Your task to perform on an android device: find snoozed emails in the gmail app Image 0: 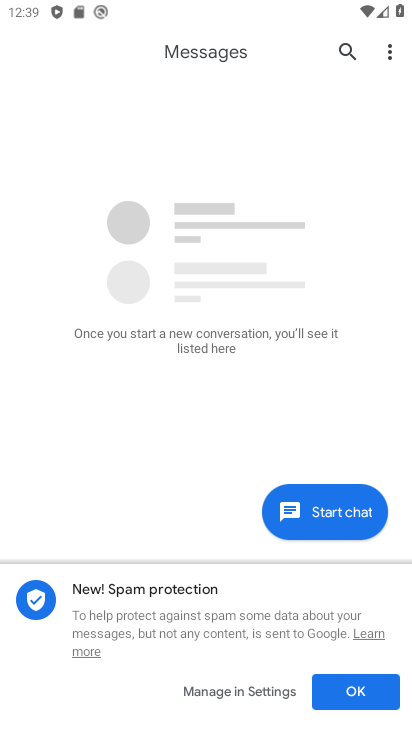
Step 0: press home button
Your task to perform on an android device: find snoozed emails in the gmail app Image 1: 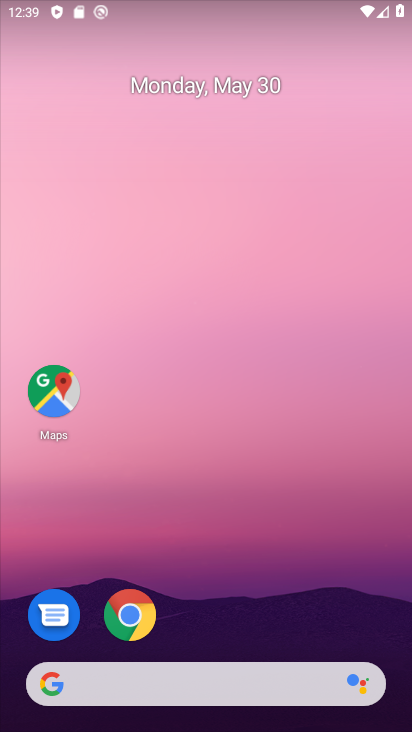
Step 1: drag from (116, 605) to (182, 163)
Your task to perform on an android device: find snoozed emails in the gmail app Image 2: 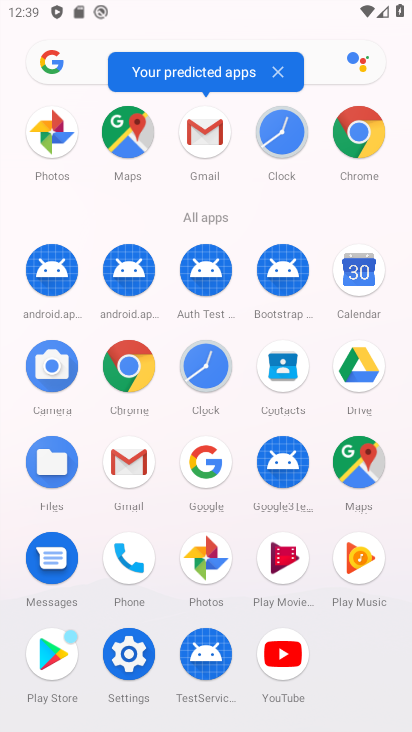
Step 2: click (123, 479)
Your task to perform on an android device: find snoozed emails in the gmail app Image 3: 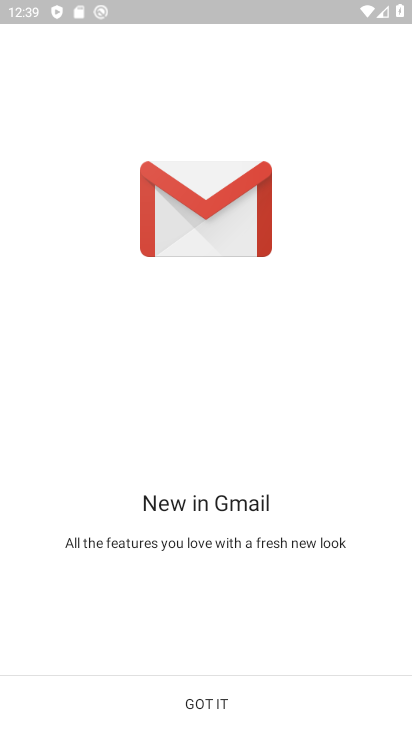
Step 3: click (235, 702)
Your task to perform on an android device: find snoozed emails in the gmail app Image 4: 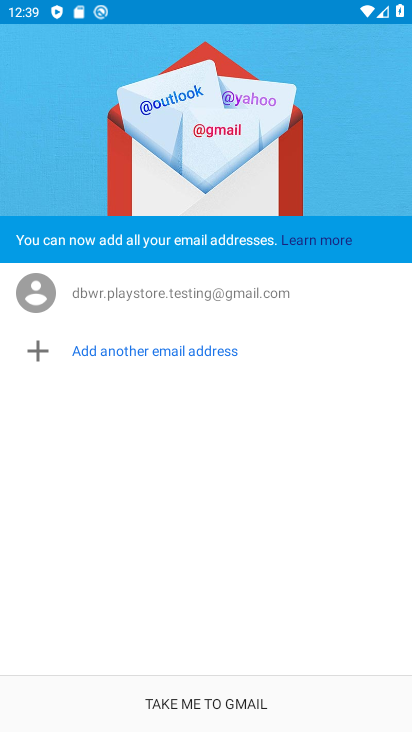
Step 4: click (256, 721)
Your task to perform on an android device: find snoozed emails in the gmail app Image 5: 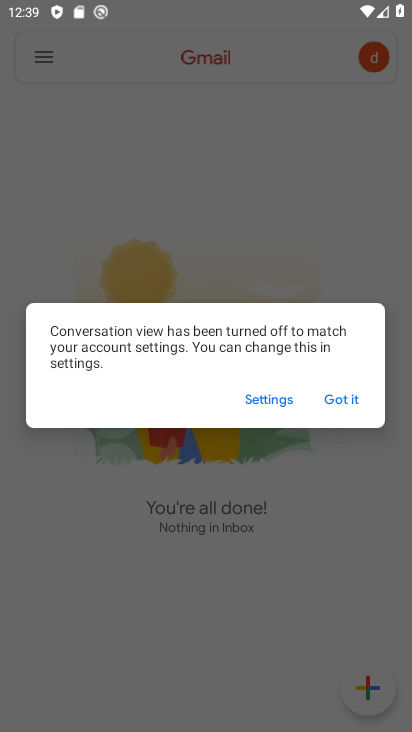
Step 5: click (314, 398)
Your task to perform on an android device: find snoozed emails in the gmail app Image 6: 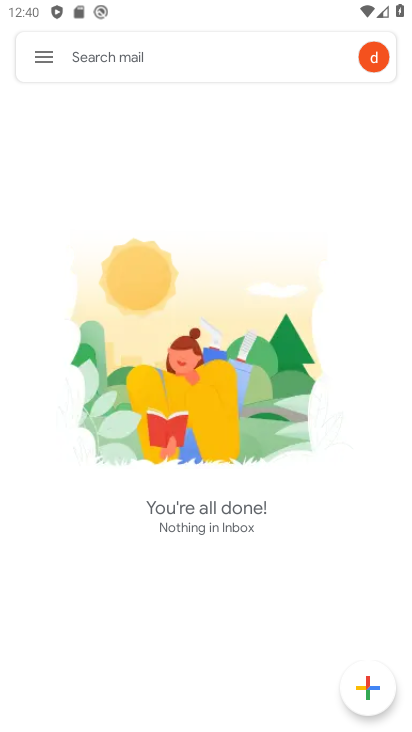
Step 6: click (44, 55)
Your task to perform on an android device: find snoozed emails in the gmail app Image 7: 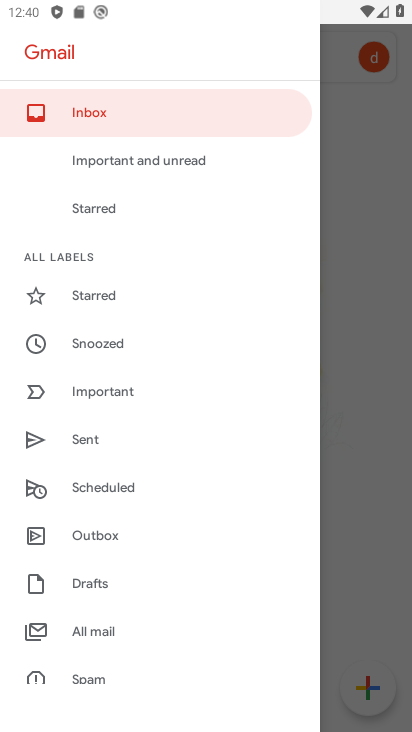
Step 7: click (119, 353)
Your task to perform on an android device: find snoozed emails in the gmail app Image 8: 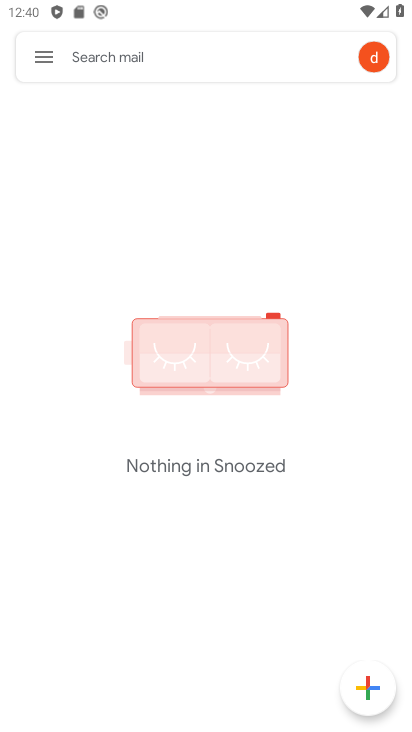
Step 8: task complete